Your task to perform on an android device: open app "Paramount+ | Peak Streaming" (install if not already installed), go to login, and select forgot password Image 0: 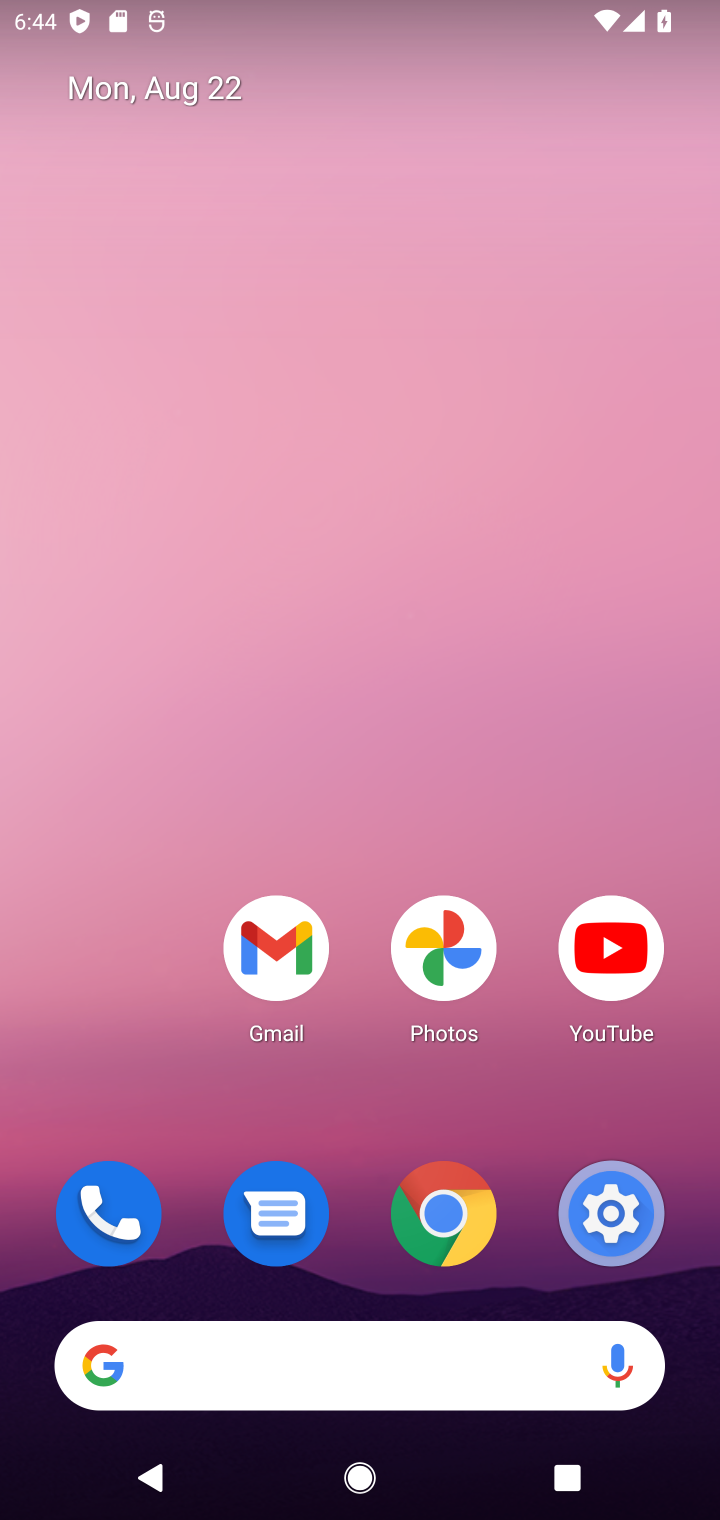
Step 0: press home button
Your task to perform on an android device: open app "Paramount+ | Peak Streaming" (install if not already installed), go to login, and select forgot password Image 1: 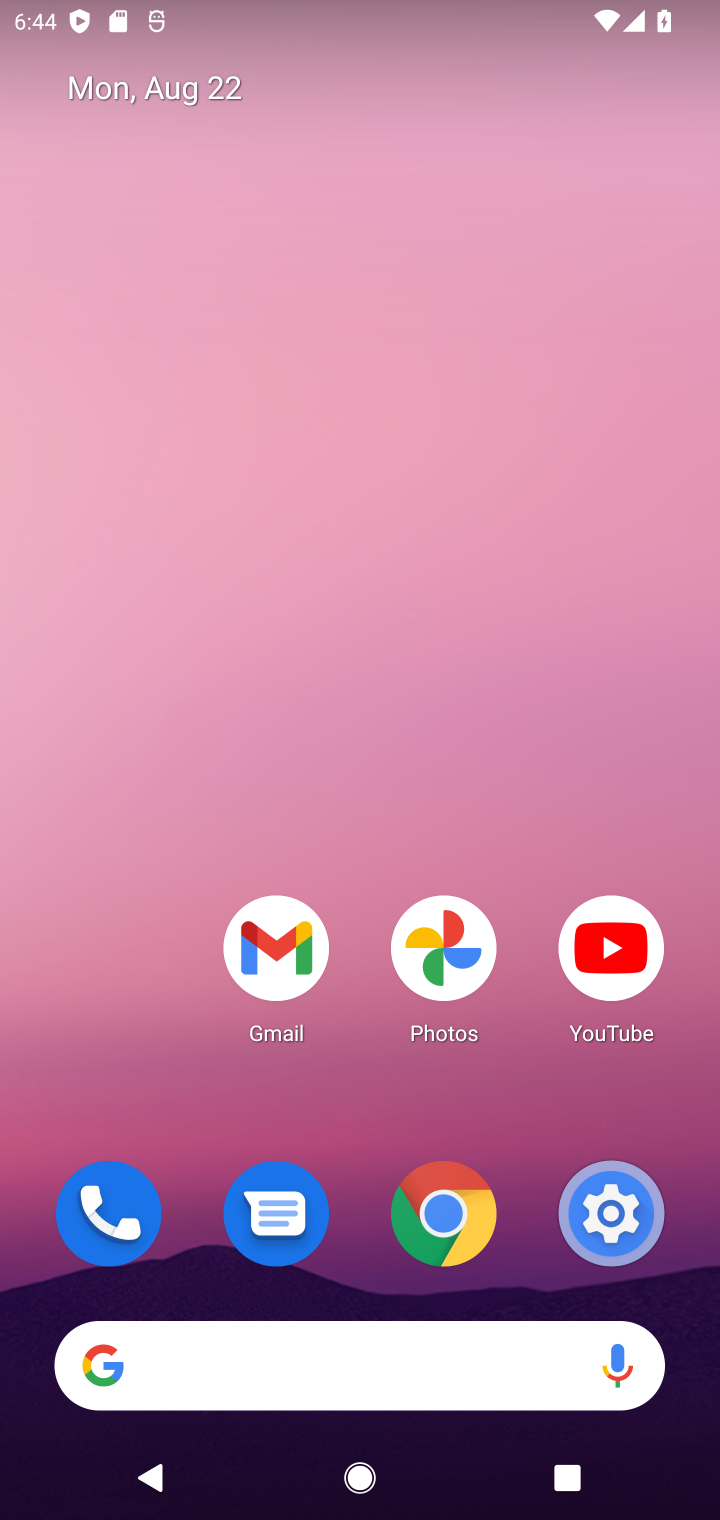
Step 1: drag from (347, 868) to (104, 185)
Your task to perform on an android device: open app "Paramount+ | Peak Streaming" (install if not already installed), go to login, and select forgot password Image 2: 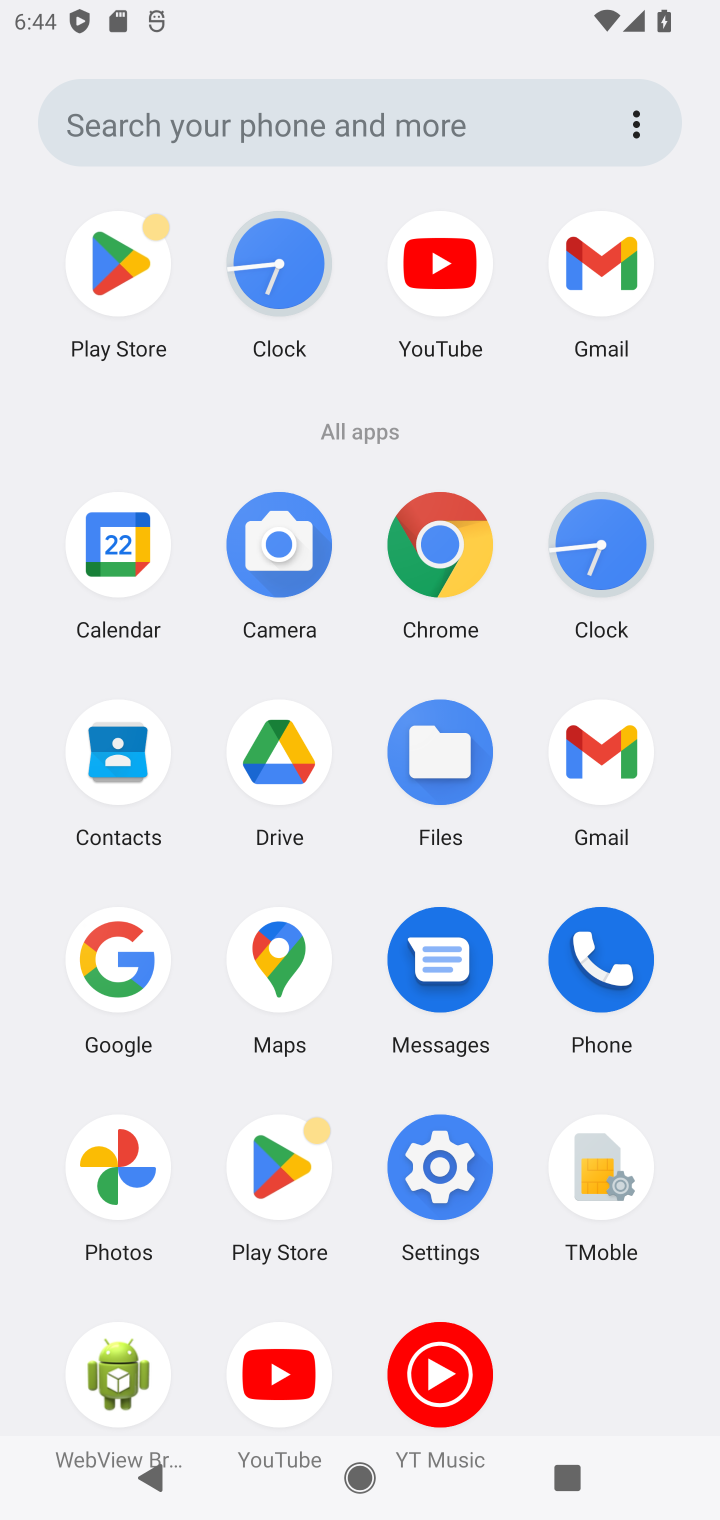
Step 2: click (247, 1171)
Your task to perform on an android device: open app "Paramount+ | Peak Streaming" (install if not already installed), go to login, and select forgot password Image 3: 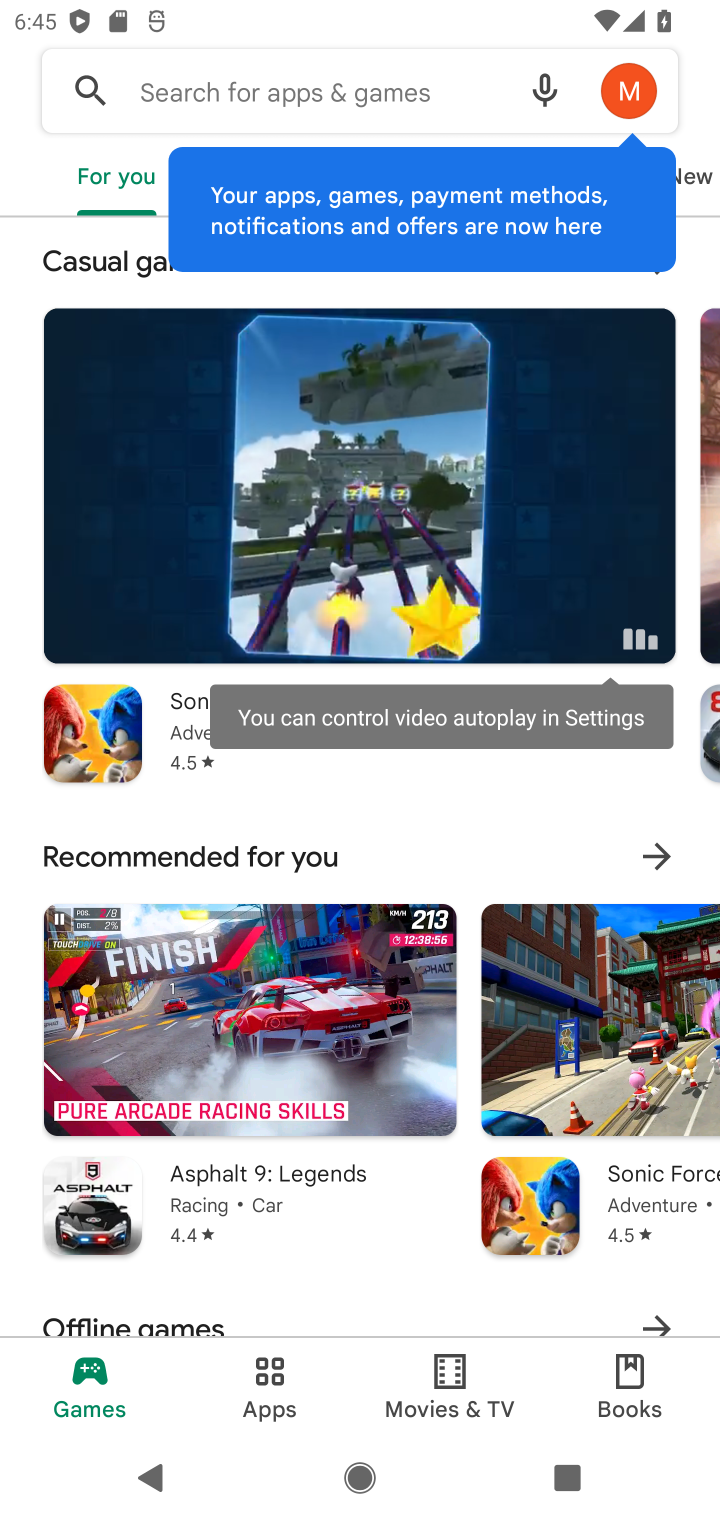
Step 3: click (185, 94)
Your task to perform on an android device: open app "Paramount+ | Peak Streaming" (install if not already installed), go to login, and select forgot password Image 4: 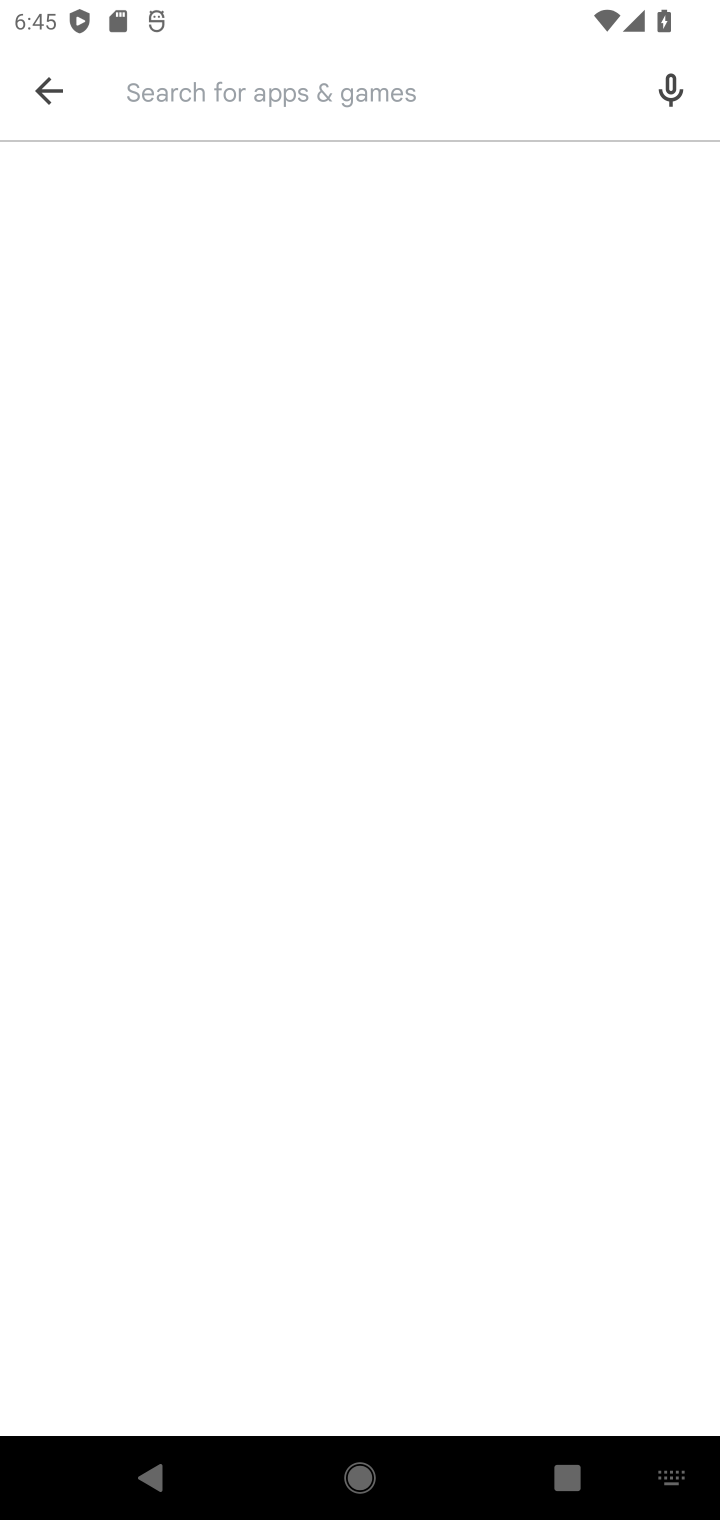
Step 4: type "Paramount+ | Peak Streaming"
Your task to perform on an android device: open app "Paramount+ | Peak Streaming" (install if not already installed), go to login, and select forgot password Image 5: 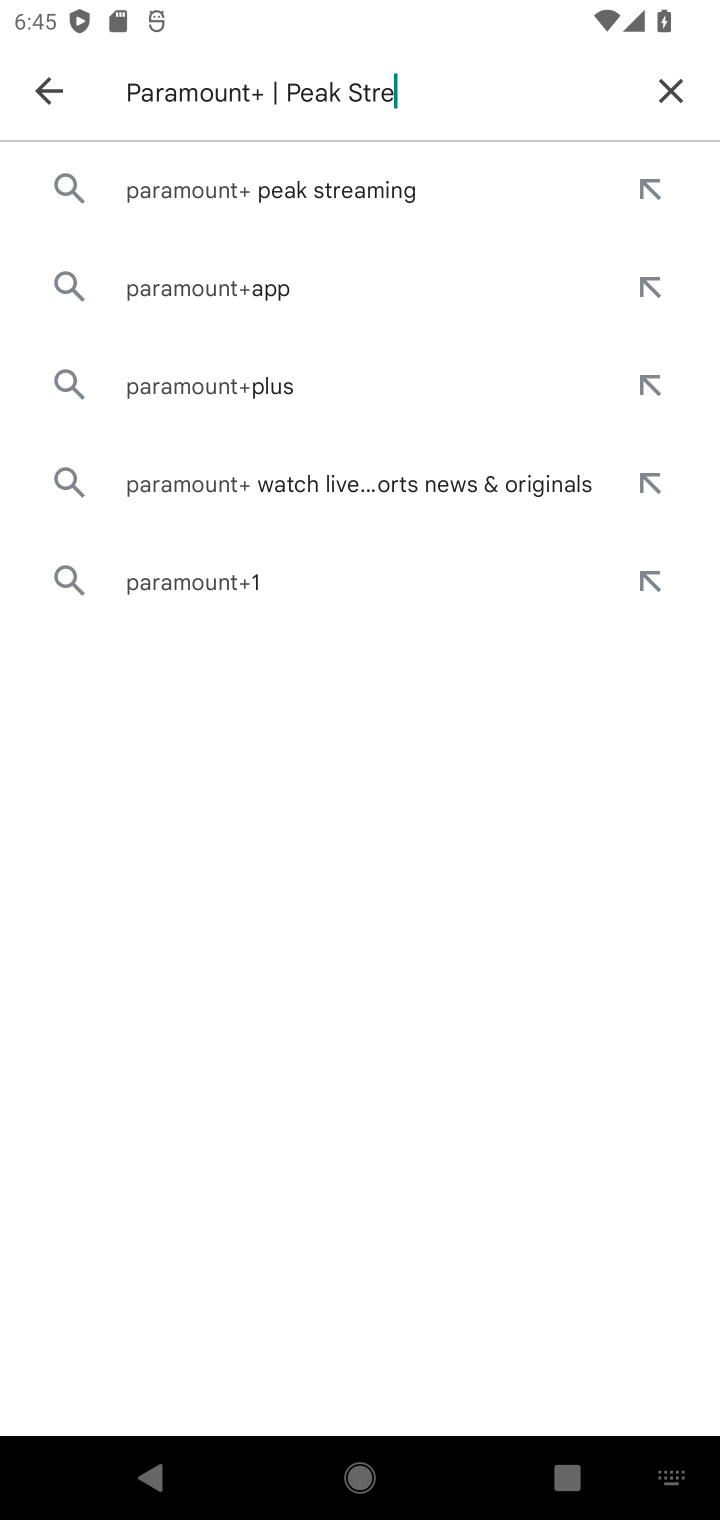
Step 5: type ""
Your task to perform on an android device: open app "Paramount+ | Peak Streaming" (install if not already installed), go to login, and select forgot password Image 6: 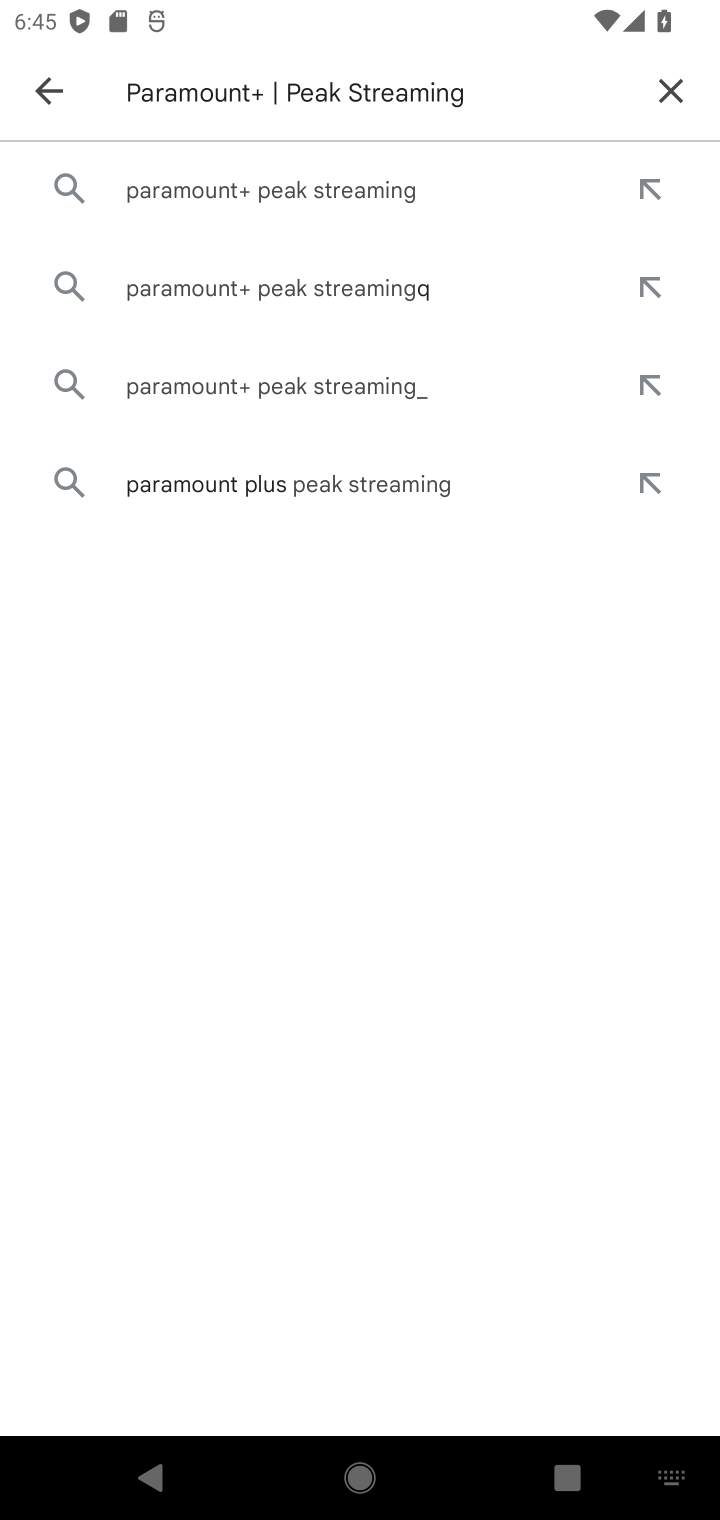
Step 6: click (331, 181)
Your task to perform on an android device: open app "Paramount+ | Peak Streaming" (install if not already installed), go to login, and select forgot password Image 7: 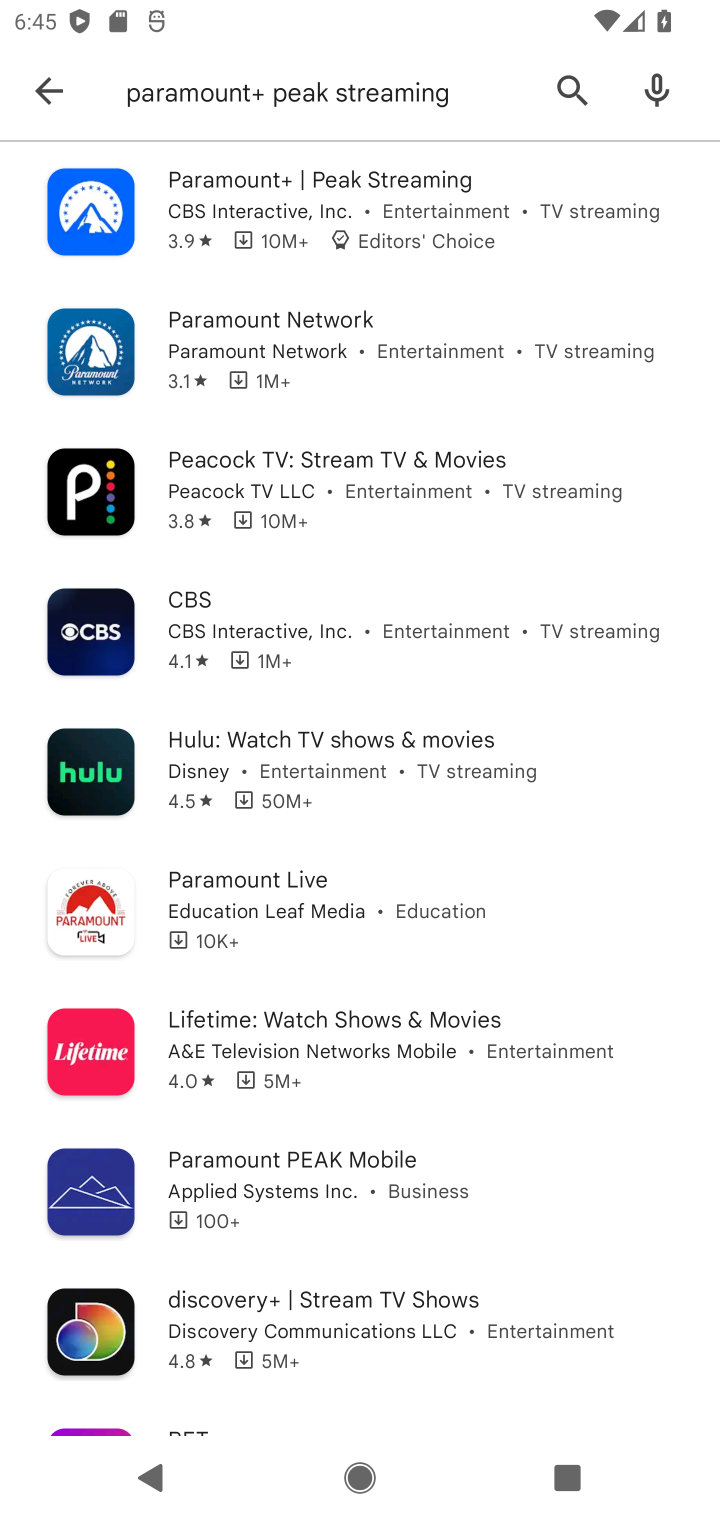
Step 7: click (333, 193)
Your task to perform on an android device: open app "Paramount+ | Peak Streaming" (install if not already installed), go to login, and select forgot password Image 8: 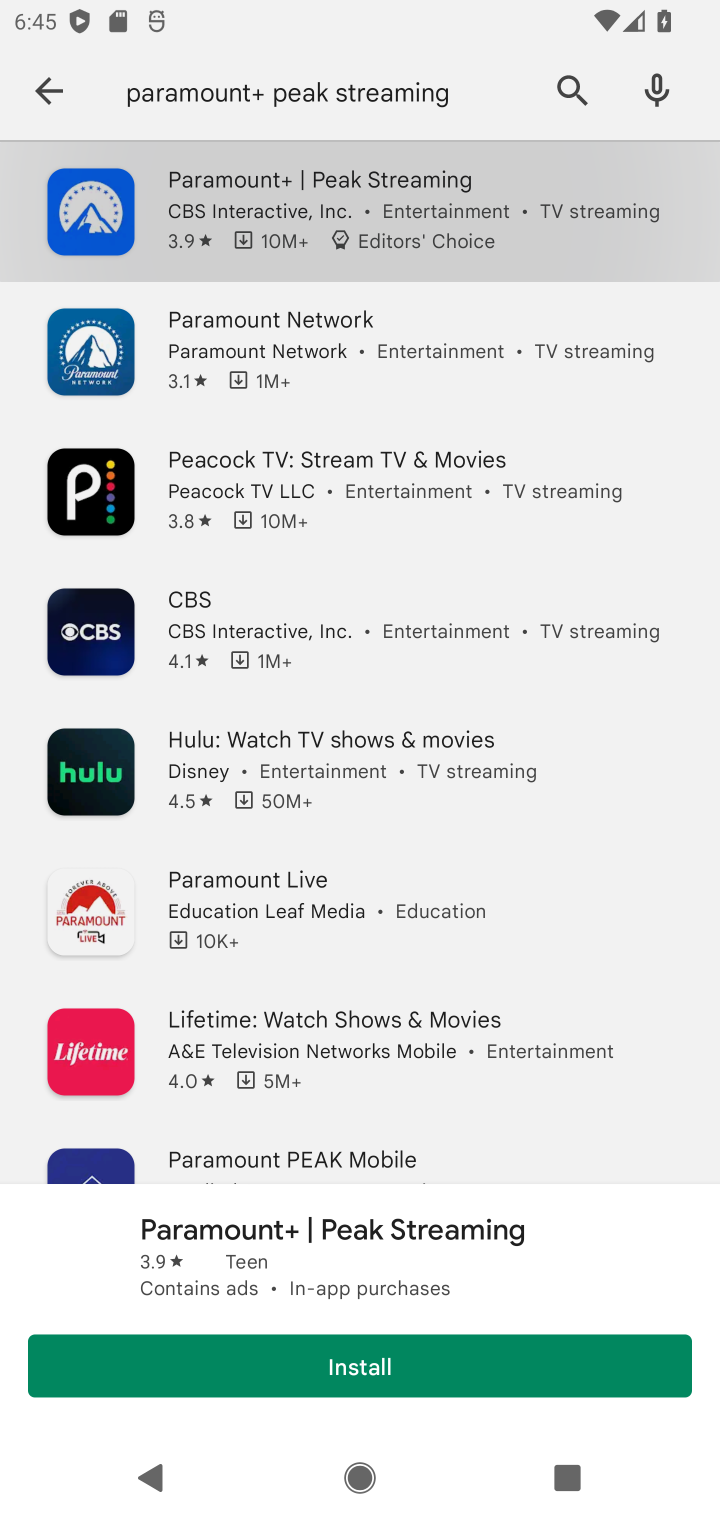
Step 8: click (340, 209)
Your task to perform on an android device: open app "Paramount+ | Peak Streaming" (install if not already installed), go to login, and select forgot password Image 9: 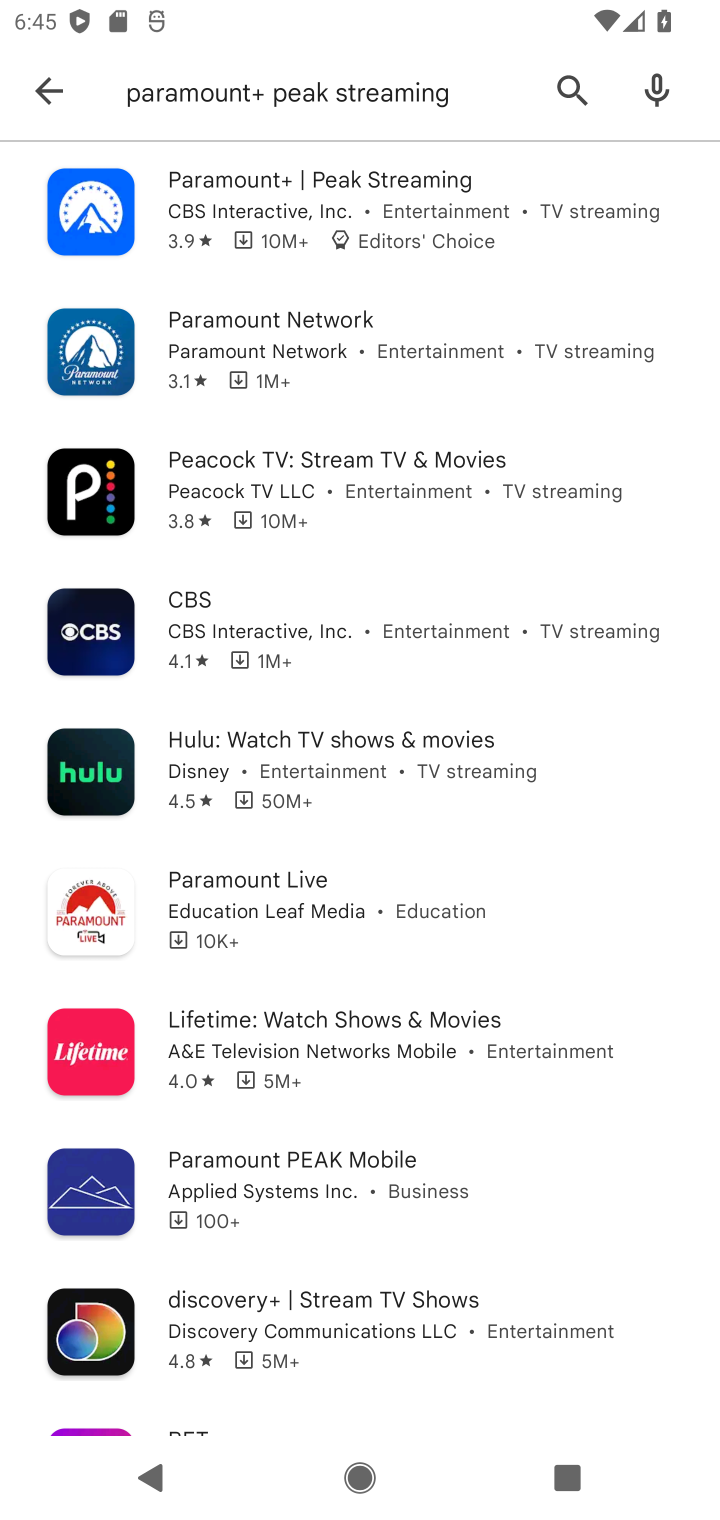
Step 9: click (233, 231)
Your task to perform on an android device: open app "Paramount+ | Peak Streaming" (install if not already installed), go to login, and select forgot password Image 10: 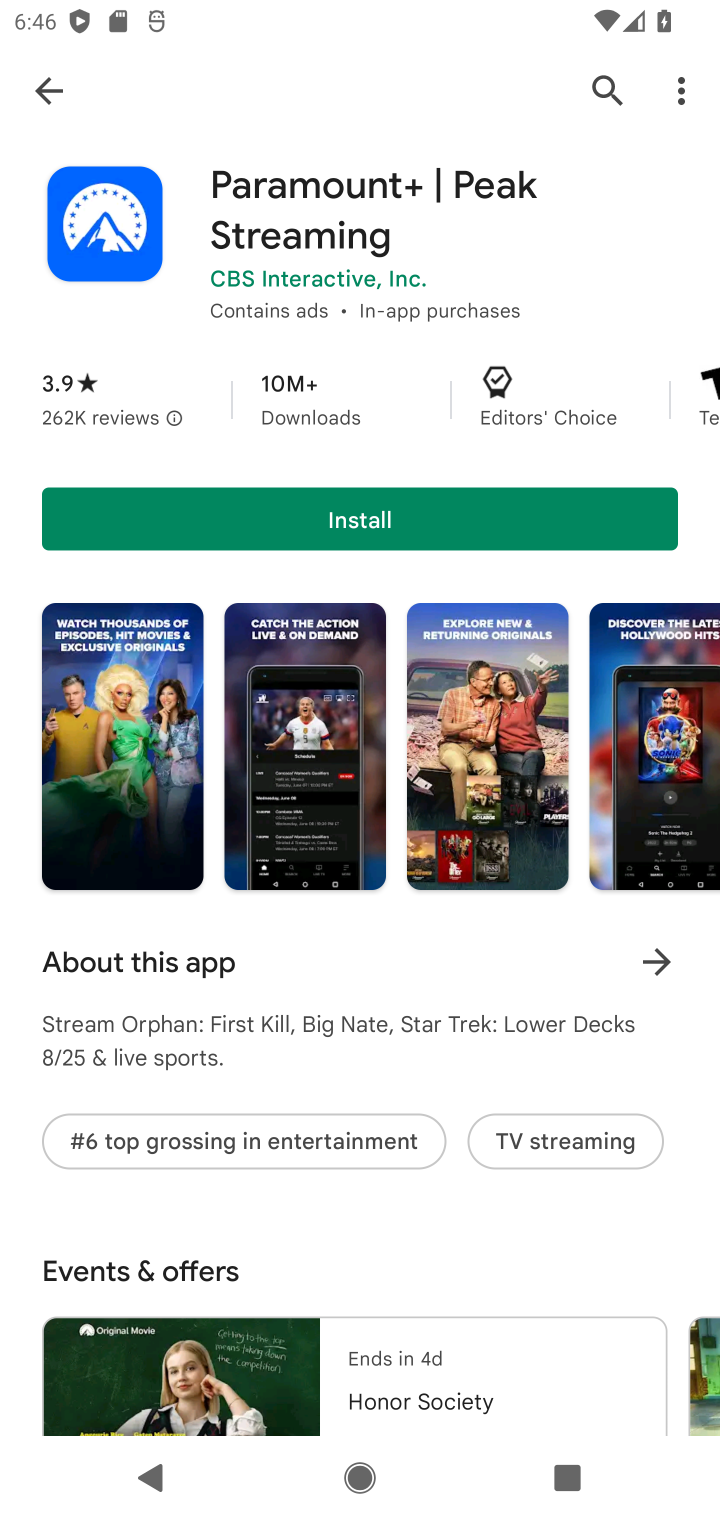
Step 10: click (345, 510)
Your task to perform on an android device: open app "Paramount+ | Peak Streaming" (install if not already installed), go to login, and select forgot password Image 11: 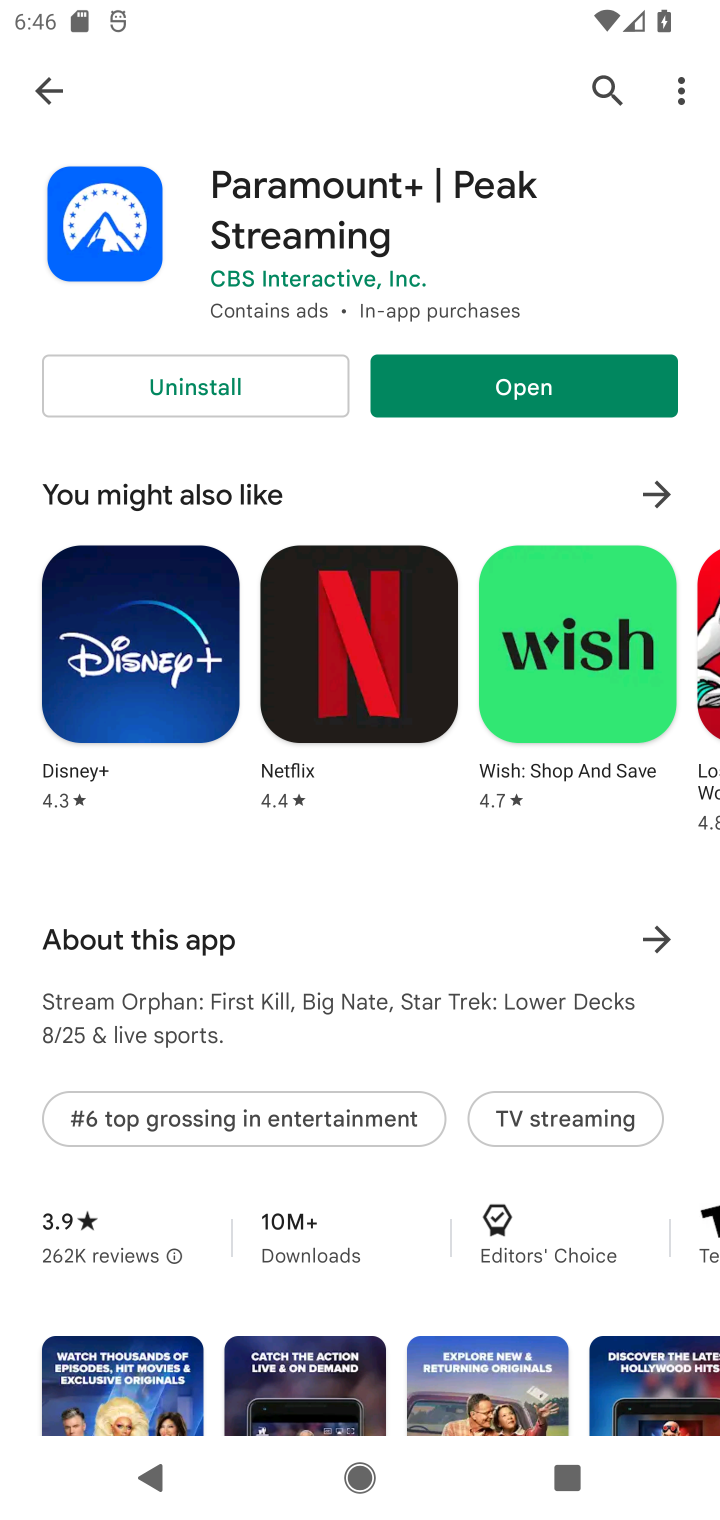
Step 11: click (520, 396)
Your task to perform on an android device: open app "Paramount+ | Peak Streaming" (install if not already installed), go to login, and select forgot password Image 12: 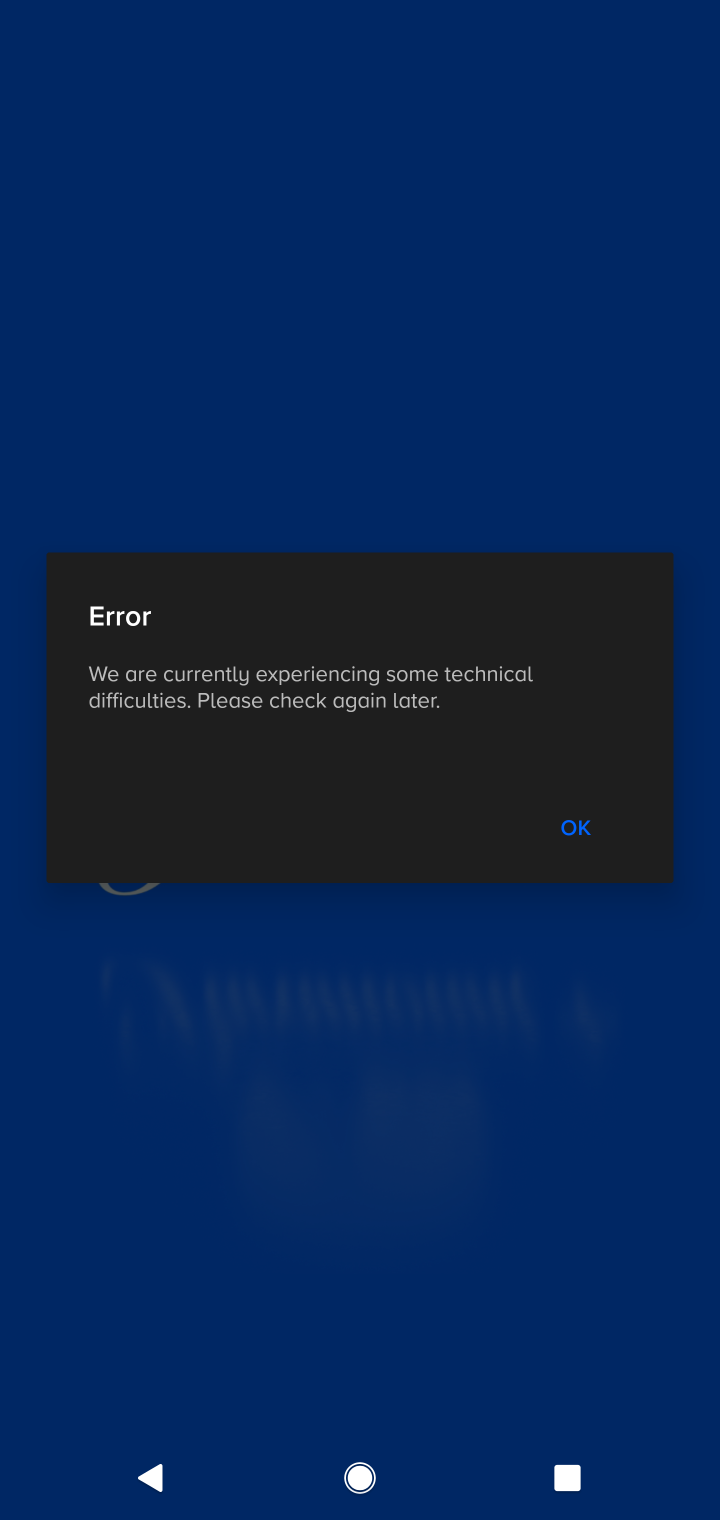
Step 12: click (574, 819)
Your task to perform on an android device: open app "Paramount+ | Peak Streaming" (install if not already installed), go to login, and select forgot password Image 13: 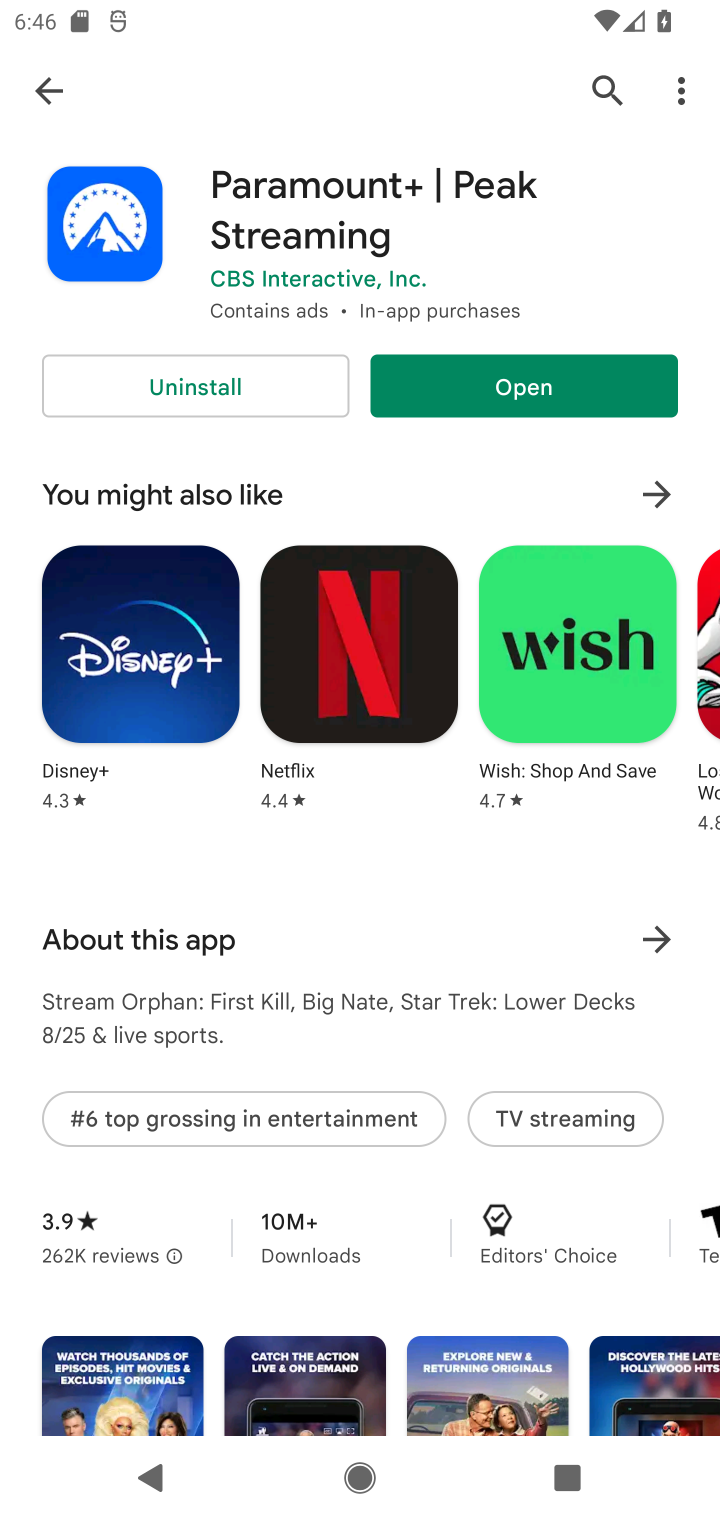
Step 13: task complete